Your task to perform on an android device: Open calendar and show me the second week of next month Image 0: 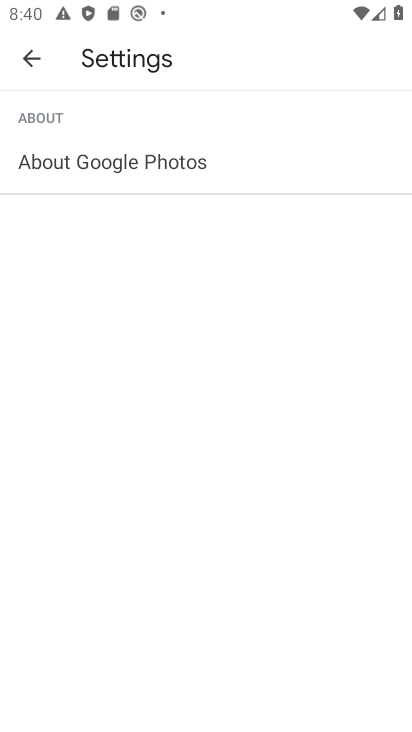
Step 0: press home button
Your task to perform on an android device: Open calendar and show me the second week of next month Image 1: 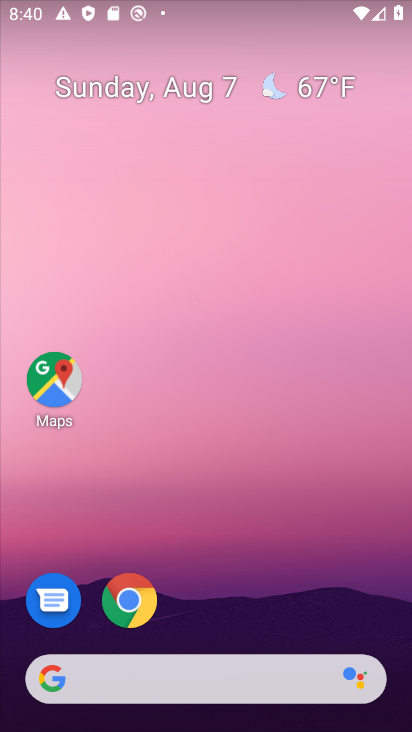
Step 1: drag from (213, 605) to (287, 41)
Your task to perform on an android device: Open calendar and show me the second week of next month Image 2: 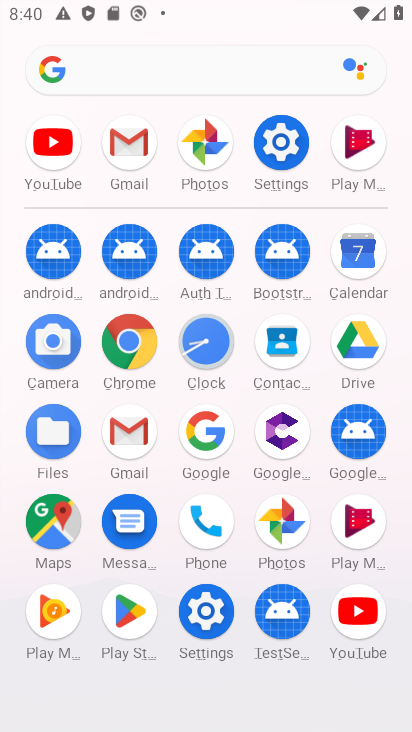
Step 2: click (335, 267)
Your task to perform on an android device: Open calendar and show me the second week of next month Image 3: 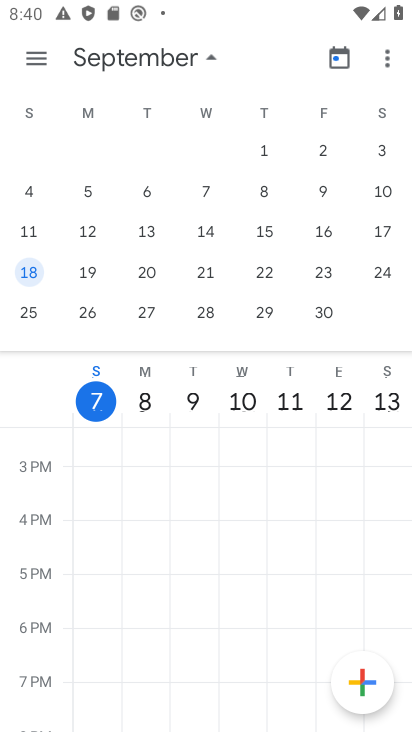
Step 3: click (29, 198)
Your task to perform on an android device: Open calendar and show me the second week of next month Image 4: 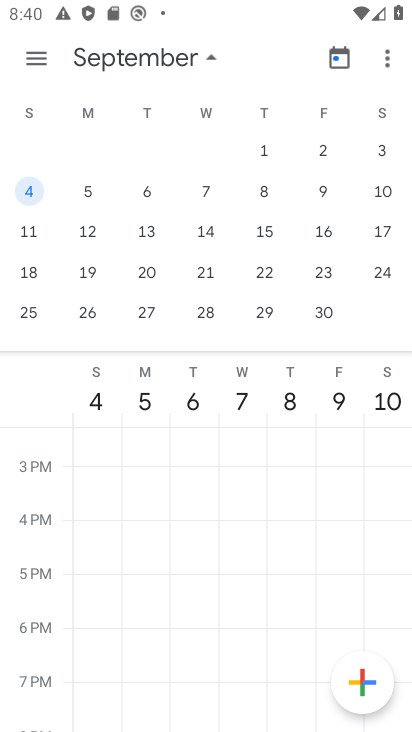
Step 4: task complete